Your task to perform on an android device: What is the news today? Image 0: 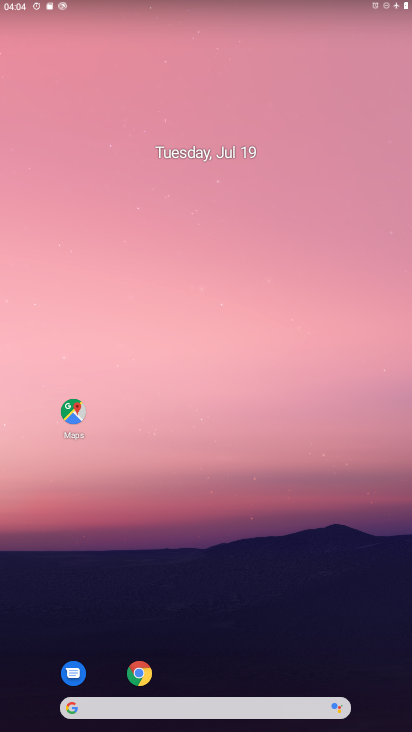
Step 0: drag from (225, 624) to (213, 11)
Your task to perform on an android device: What is the news today? Image 1: 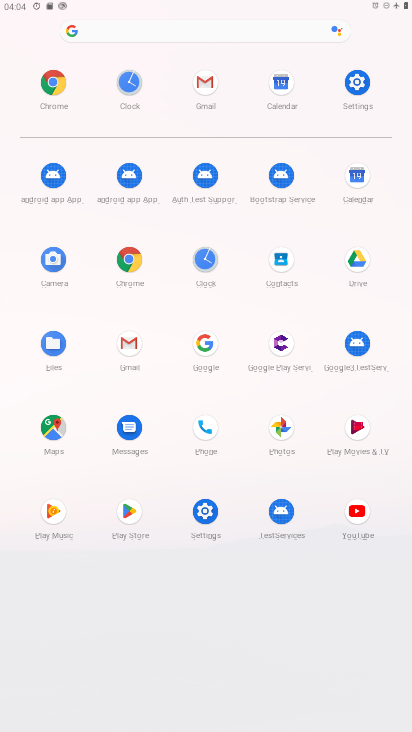
Step 1: click (170, 28)
Your task to perform on an android device: What is the news today? Image 2: 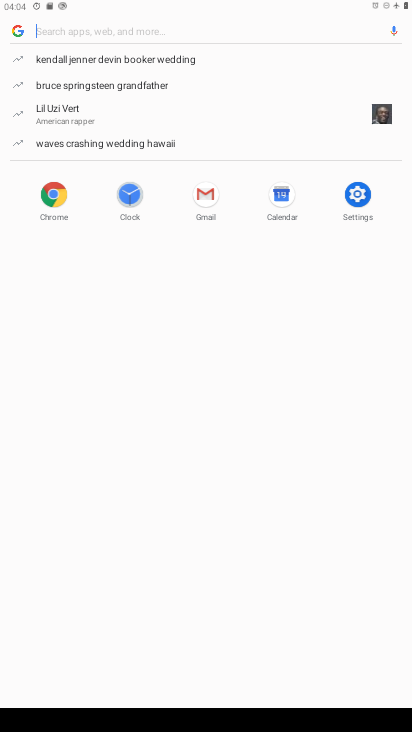
Step 2: type "news today ?"
Your task to perform on an android device: What is the news today? Image 3: 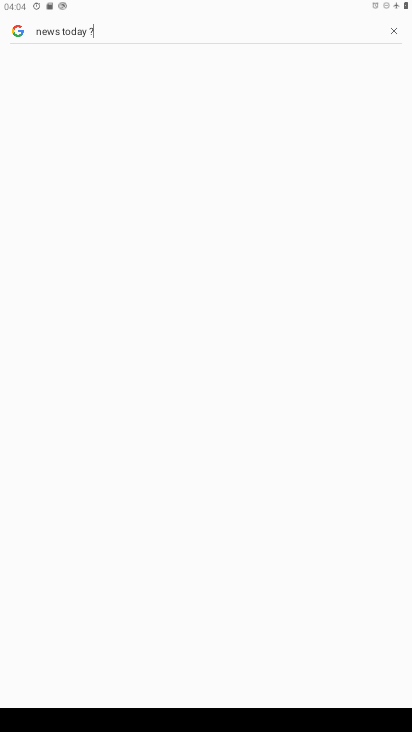
Step 3: click (101, 55)
Your task to perform on an android device: What is the news today? Image 4: 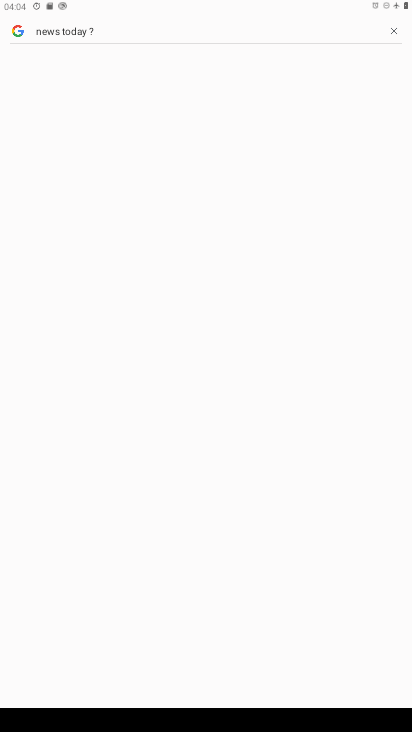
Step 4: task complete